Your task to perform on an android device: Go to privacy settings Image 0: 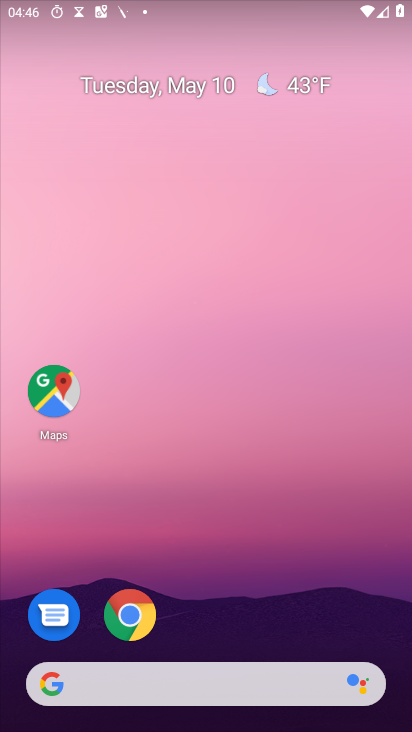
Step 0: drag from (252, 647) to (298, 1)
Your task to perform on an android device: Go to privacy settings Image 1: 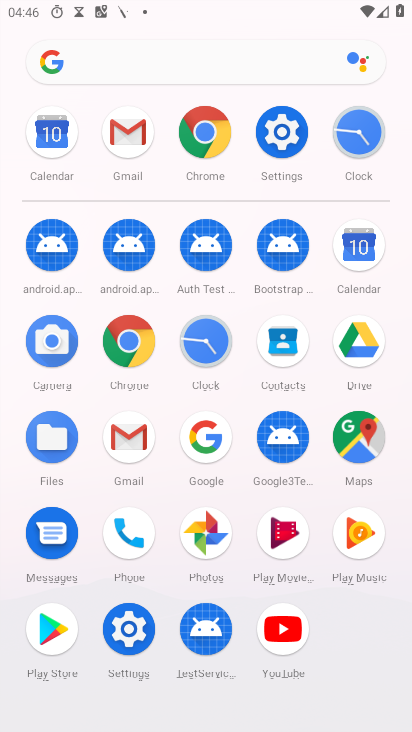
Step 1: click (272, 140)
Your task to perform on an android device: Go to privacy settings Image 2: 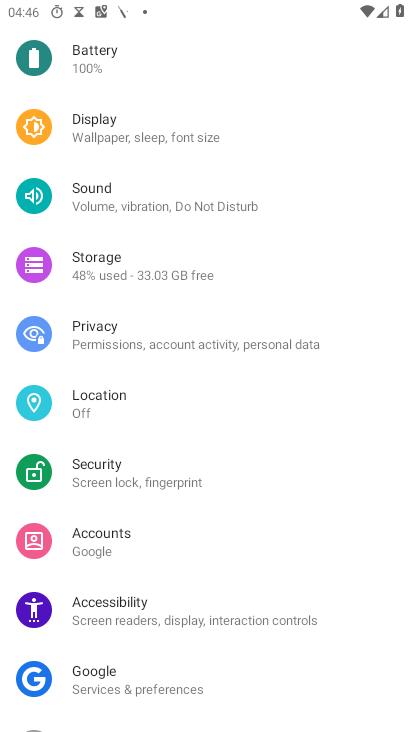
Step 2: click (124, 334)
Your task to perform on an android device: Go to privacy settings Image 3: 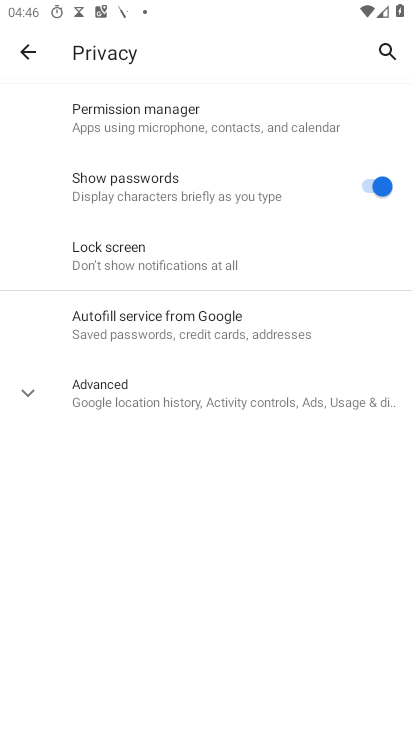
Step 3: task complete